Your task to perform on an android device: allow cookies in the chrome app Image 0: 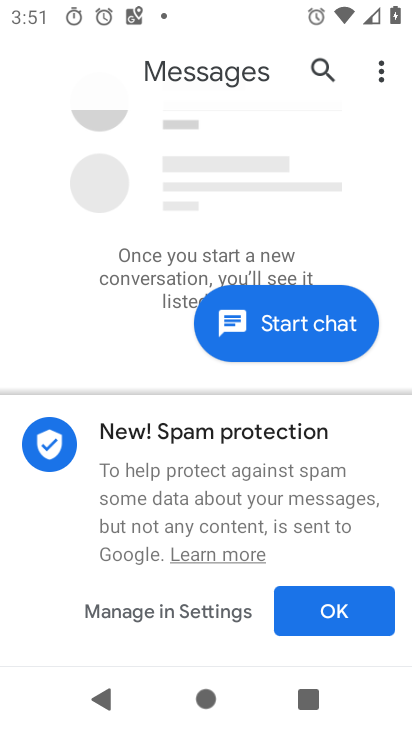
Step 0: press home button
Your task to perform on an android device: allow cookies in the chrome app Image 1: 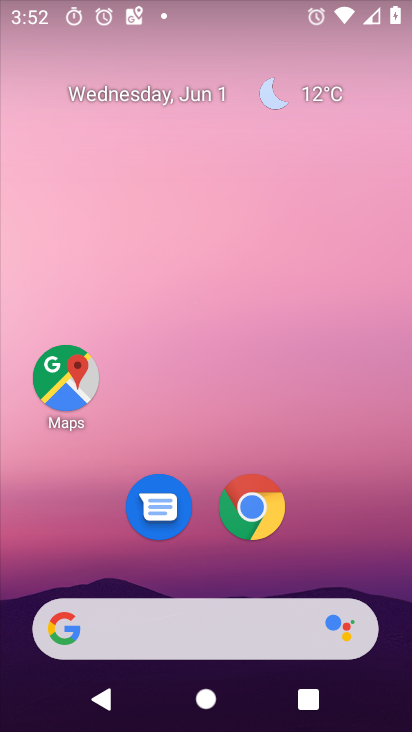
Step 1: click (259, 507)
Your task to perform on an android device: allow cookies in the chrome app Image 2: 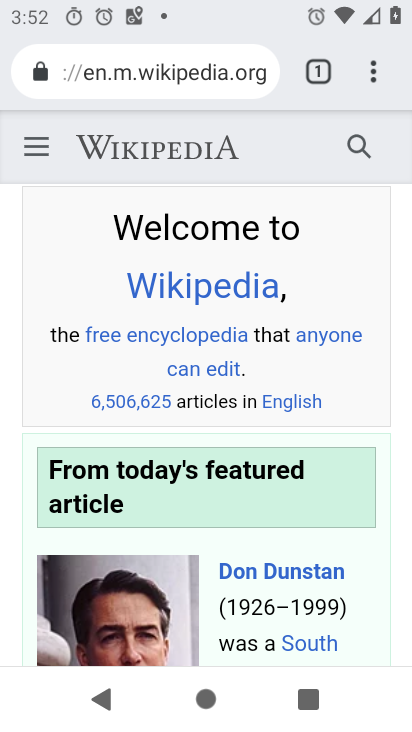
Step 2: click (374, 76)
Your task to perform on an android device: allow cookies in the chrome app Image 3: 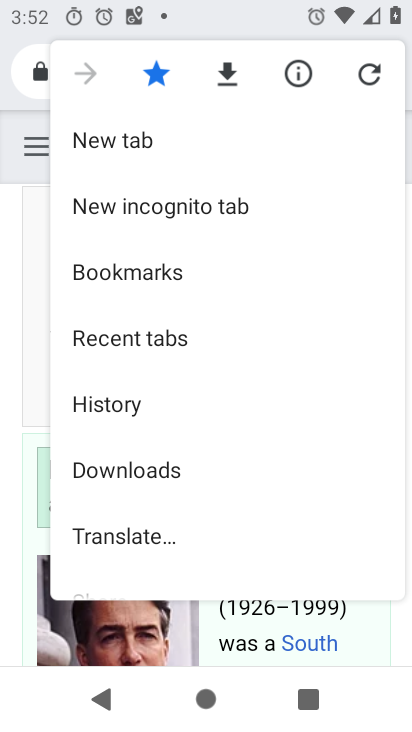
Step 3: drag from (256, 494) to (214, 129)
Your task to perform on an android device: allow cookies in the chrome app Image 4: 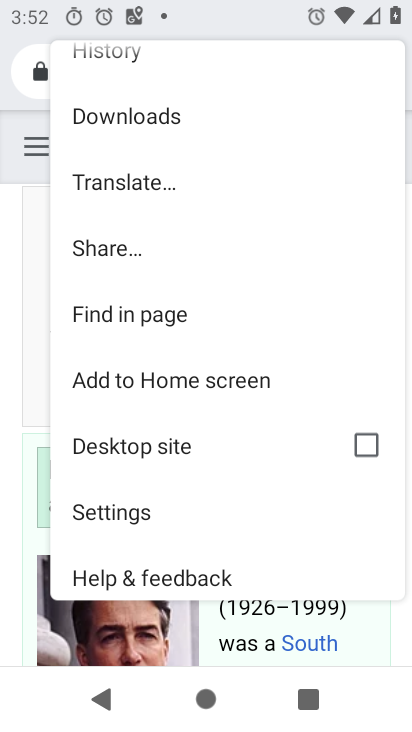
Step 4: click (130, 509)
Your task to perform on an android device: allow cookies in the chrome app Image 5: 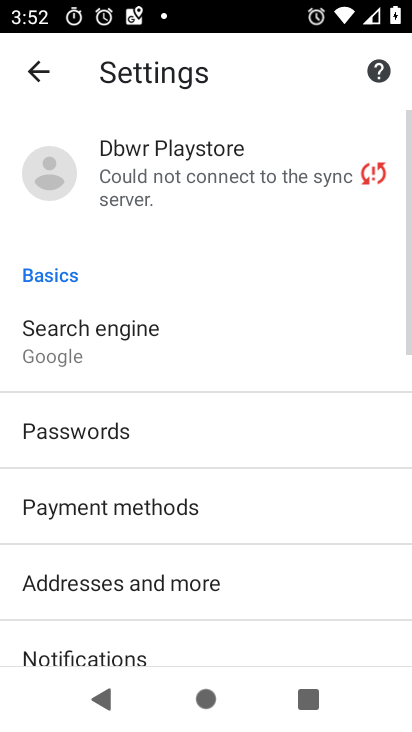
Step 5: drag from (265, 521) to (236, 142)
Your task to perform on an android device: allow cookies in the chrome app Image 6: 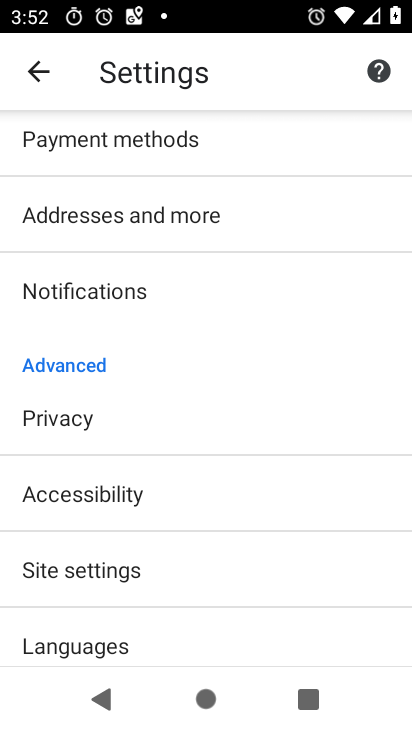
Step 6: click (85, 580)
Your task to perform on an android device: allow cookies in the chrome app Image 7: 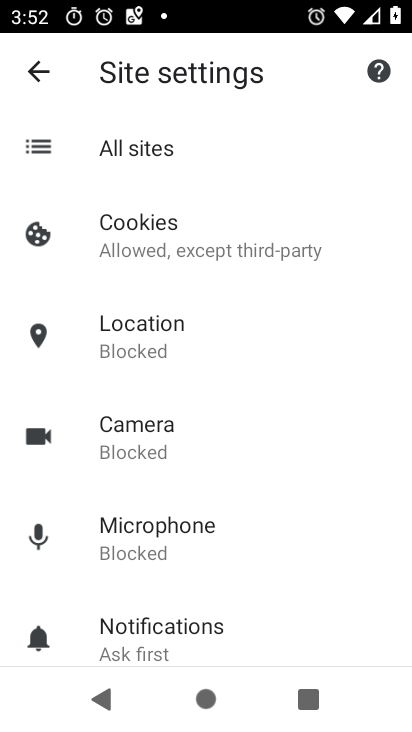
Step 7: click (149, 254)
Your task to perform on an android device: allow cookies in the chrome app Image 8: 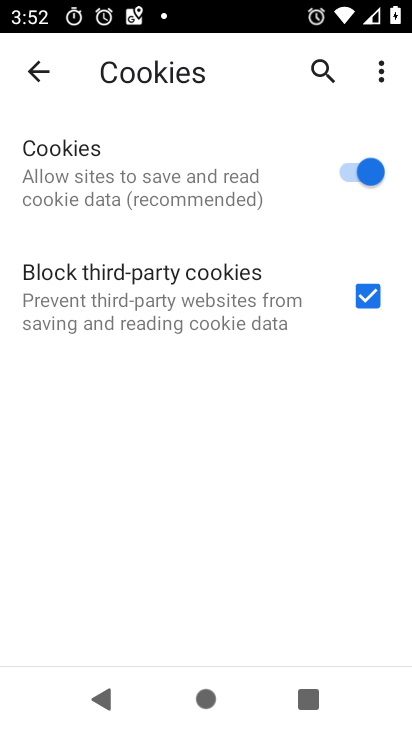
Step 8: task complete